Your task to perform on an android device: open app "Cash App" (install if not already installed) Image 0: 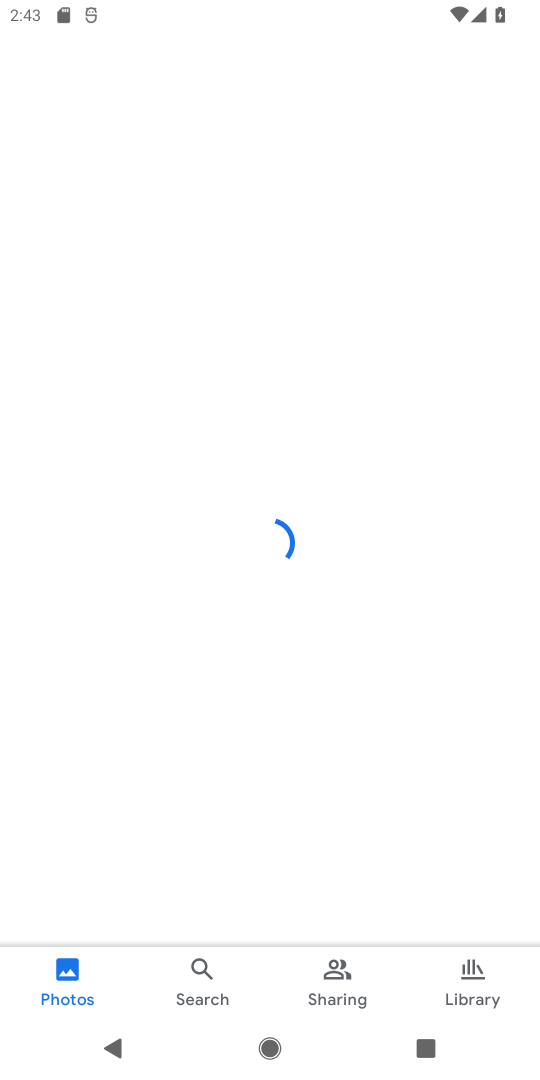
Step 0: press home button
Your task to perform on an android device: open app "Cash App" (install if not already installed) Image 1: 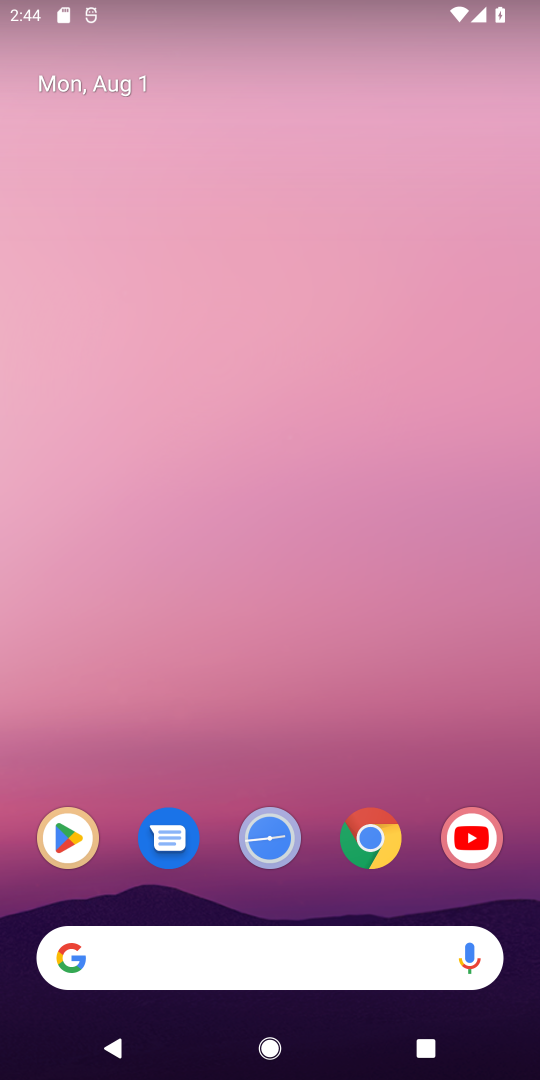
Step 1: press home button
Your task to perform on an android device: open app "Cash App" (install if not already installed) Image 2: 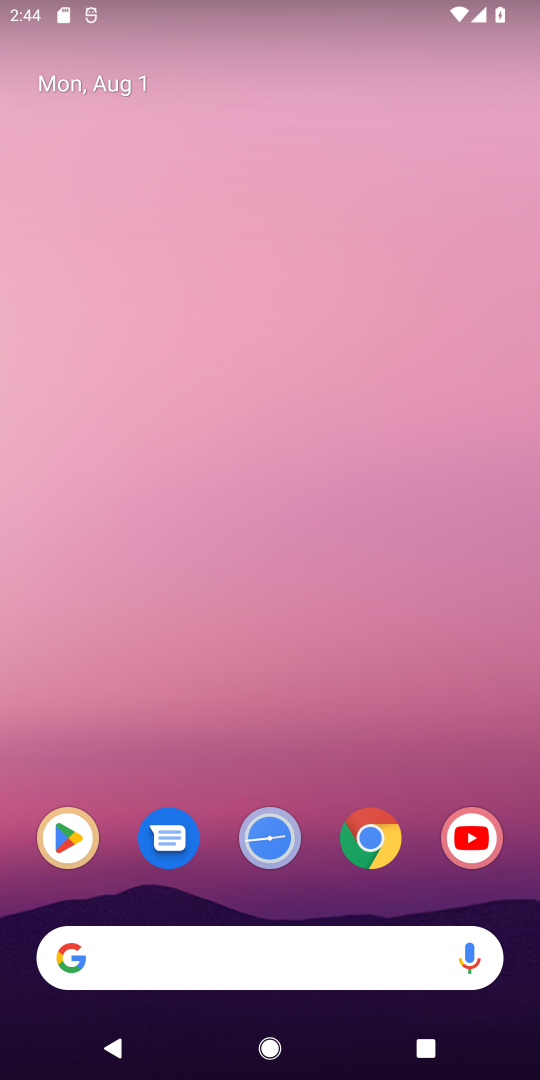
Step 2: click (69, 832)
Your task to perform on an android device: open app "Cash App" (install if not already installed) Image 3: 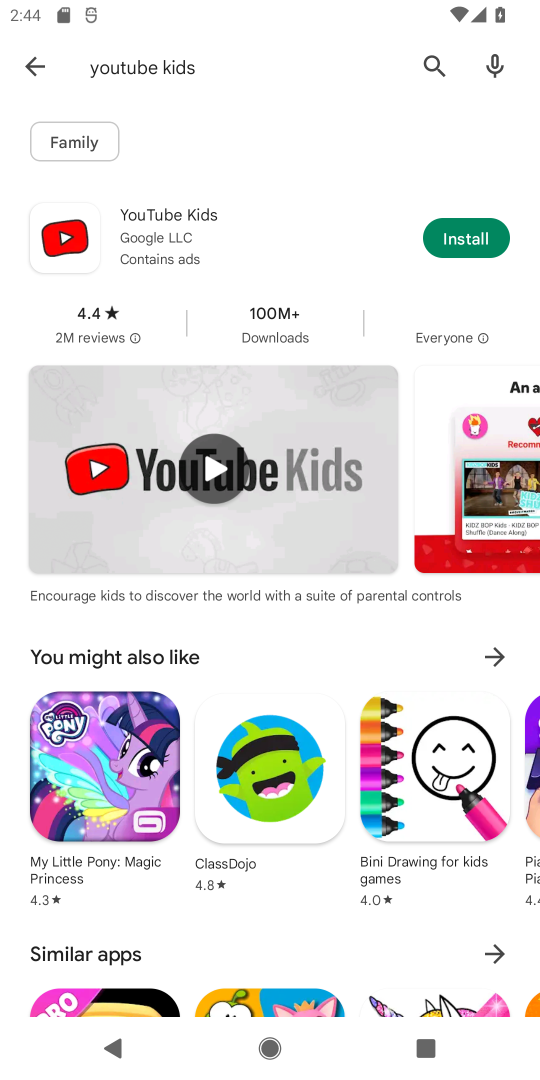
Step 3: click (435, 63)
Your task to perform on an android device: open app "Cash App" (install if not already installed) Image 4: 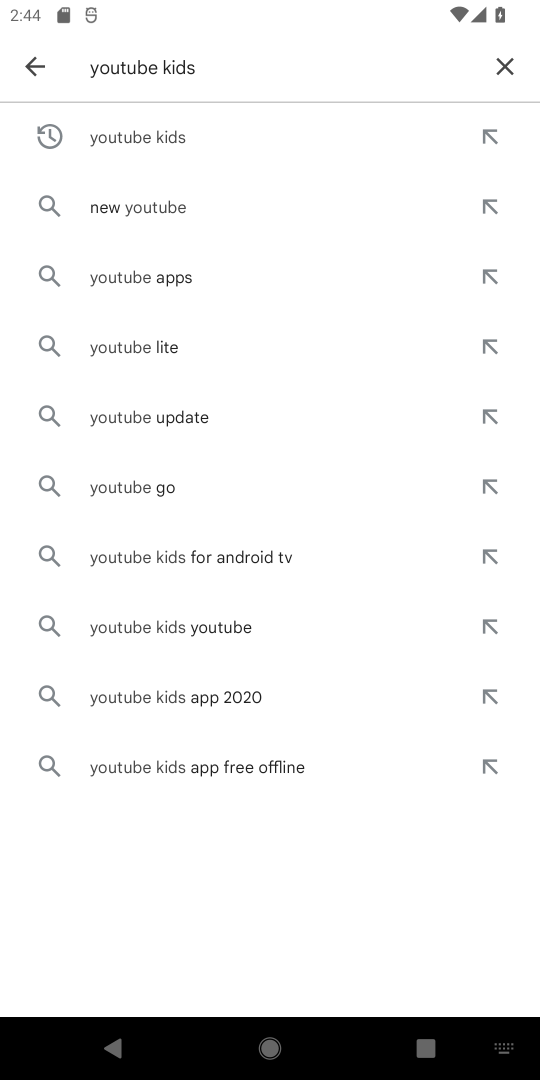
Step 4: click (500, 70)
Your task to perform on an android device: open app "Cash App" (install if not already installed) Image 5: 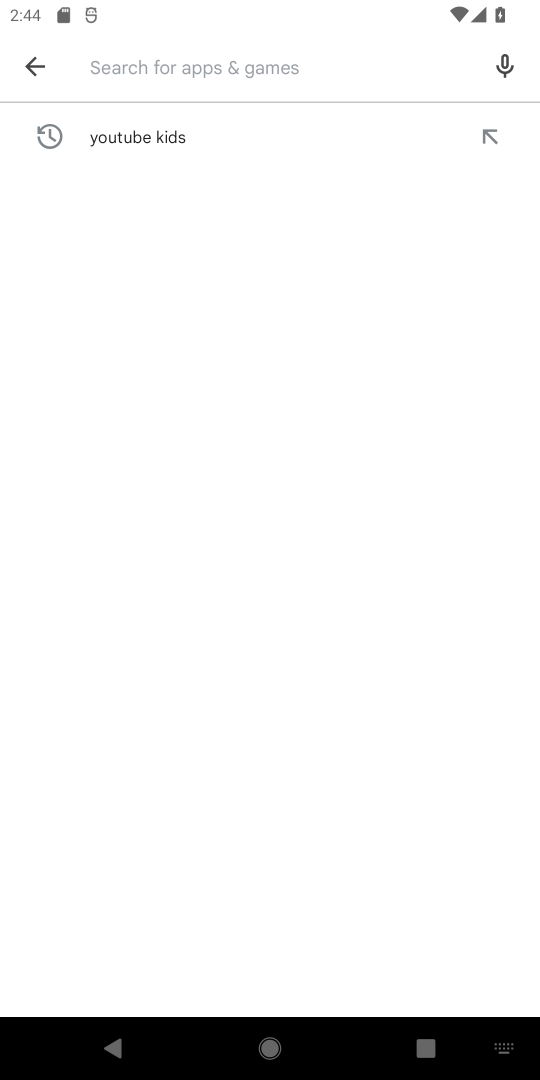
Step 5: type "cashapp"
Your task to perform on an android device: open app "Cash App" (install if not already installed) Image 6: 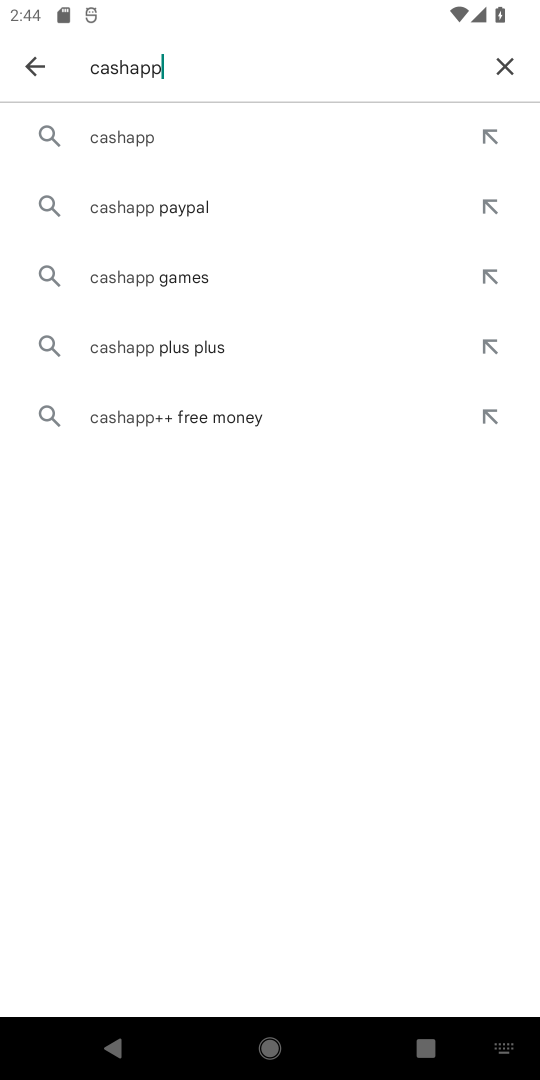
Step 6: click (365, 131)
Your task to perform on an android device: open app "Cash App" (install if not already installed) Image 7: 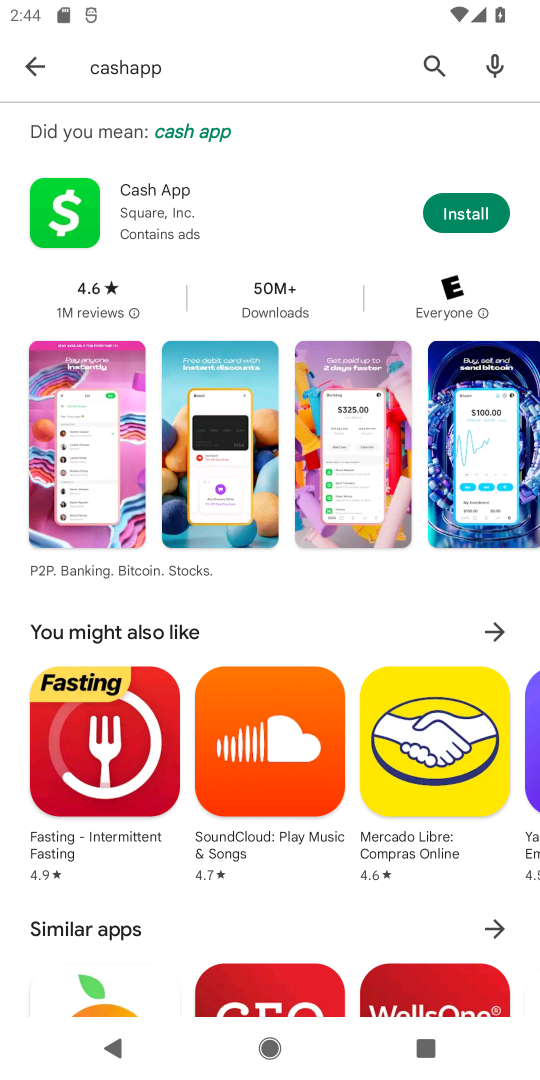
Step 7: click (455, 206)
Your task to perform on an android device: open app "Cash App" (install if not already installed) Image 8: 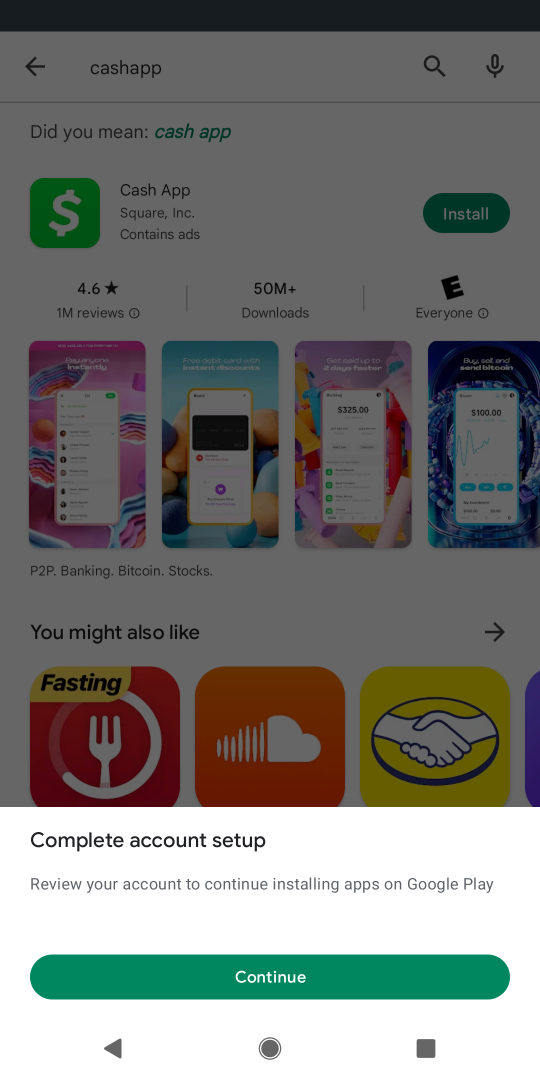
Step 8: click (287, 982)
Your task to perform on an android device: open app "Cash App" (install if not already installed) Image 9: 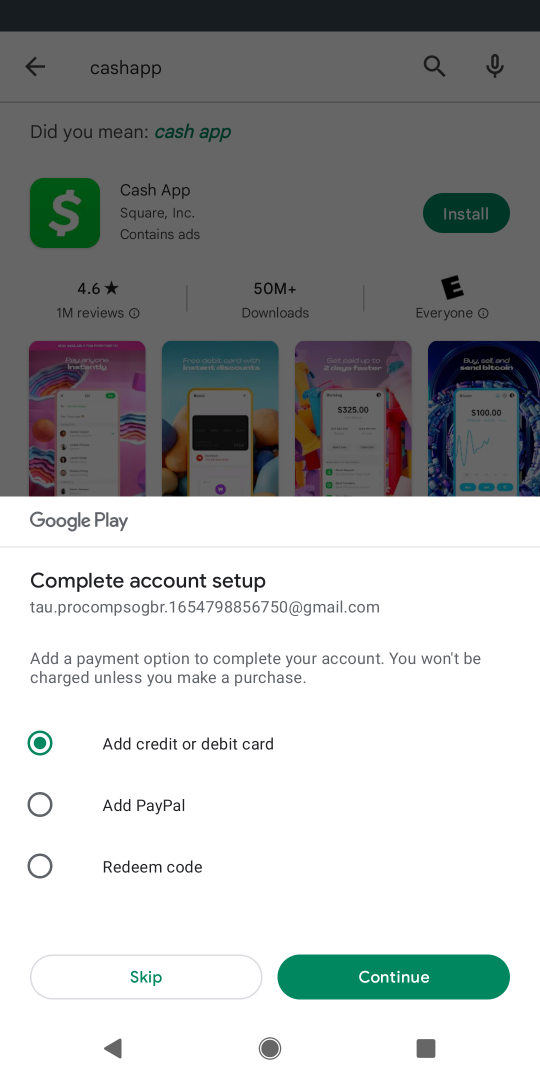
Step 9: click (146, 997)
Your task to perform on an android device: open app "Cash App" (install if not already installed) Image 10: 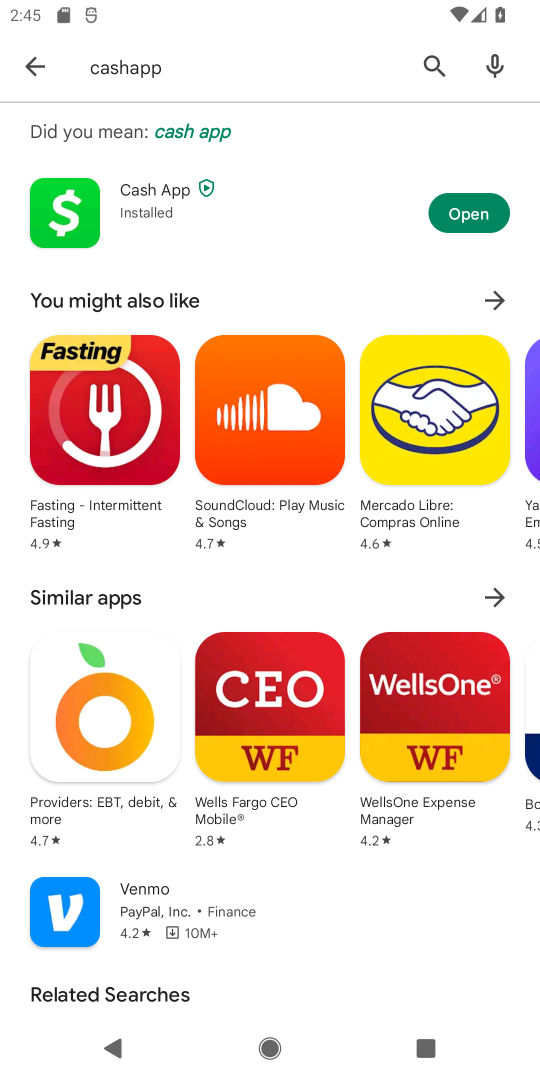
Step 10: click (464, 208)
Your task to perform on an android device: open app "Cash App" (install if not already installed) Image 11: 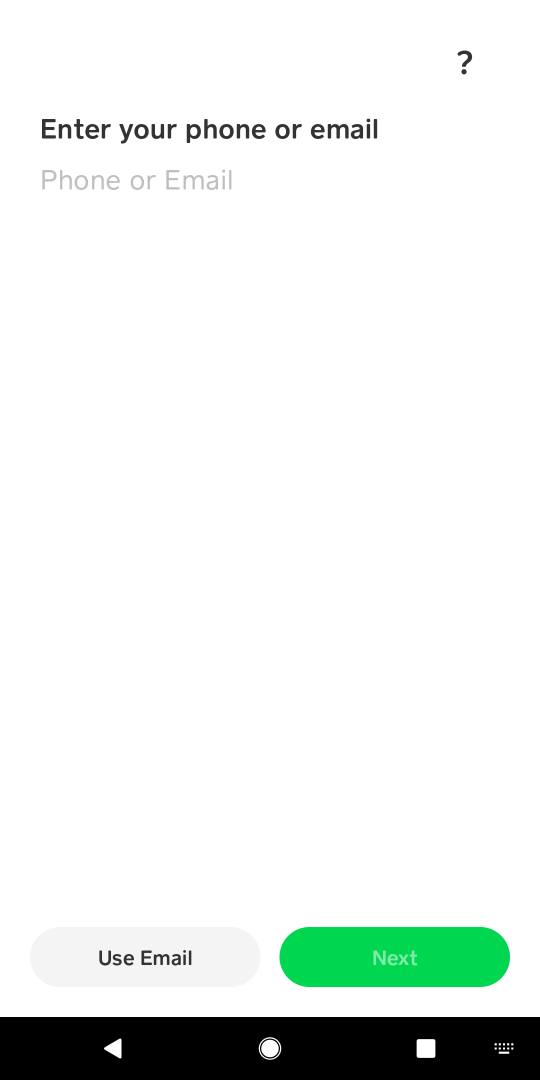
Step 11: click (453, 59)
Your task to perform on an android device: open app "Cash App" (install if not already installed) Image 12: 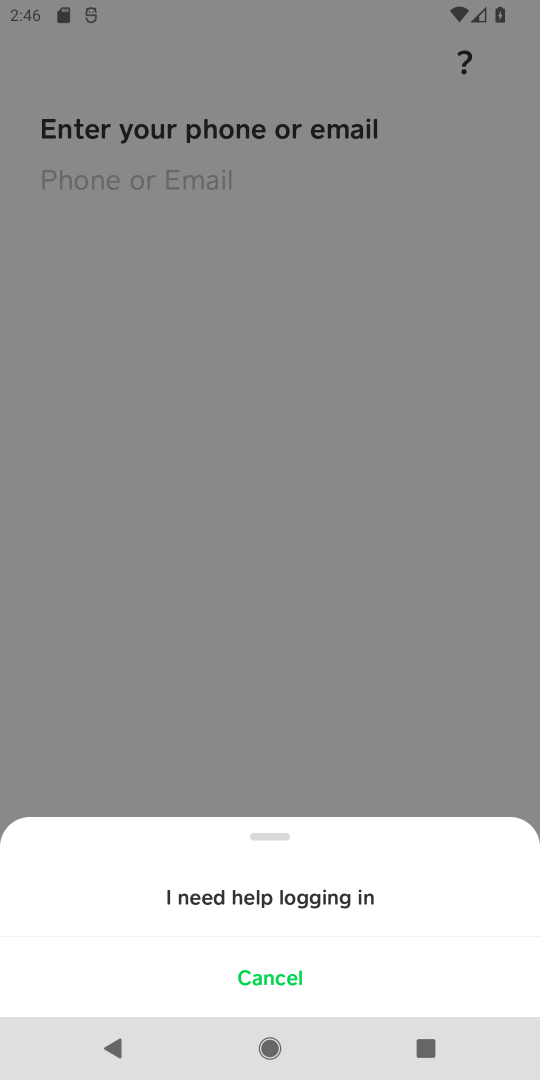
Step 12: click (263, 977)
Your task to perform on an android device: open app "Cash App" (install if not already installed) Image 13: 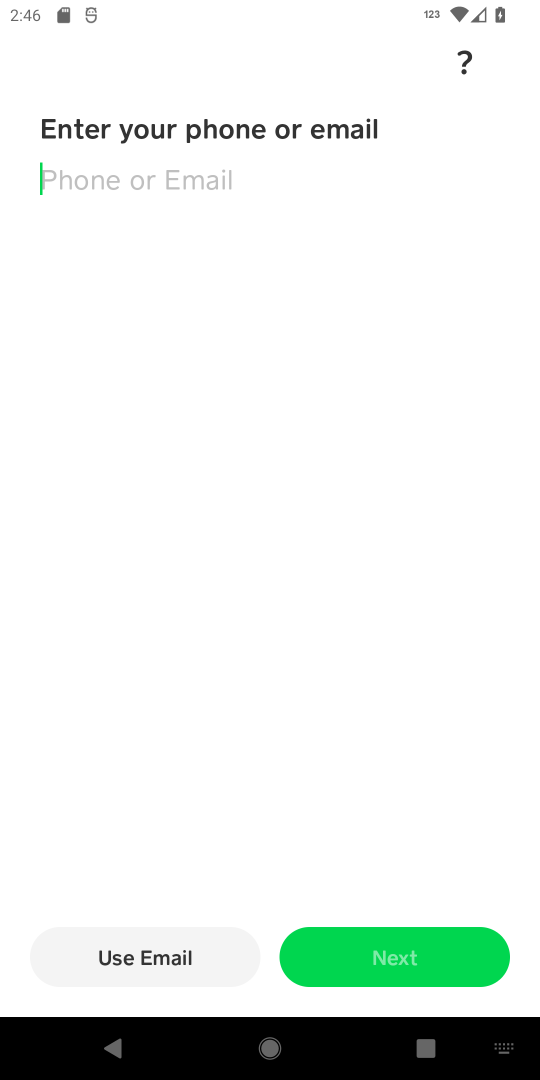
Step 13: click (150, 955)
Your task to perform on an android device: open app "Cash App" (install if not already installed) Image 14: 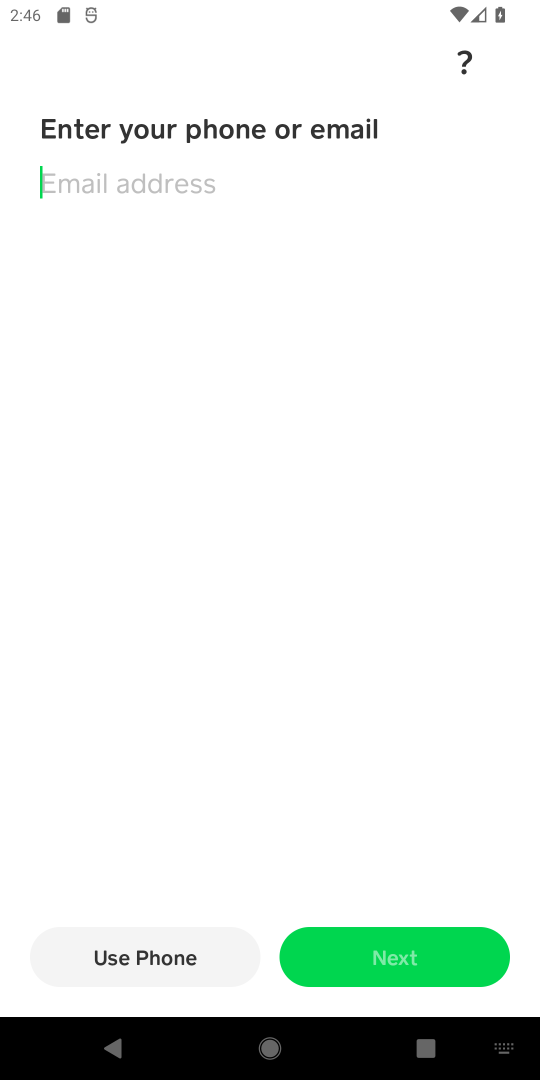
Step 14: click (105, 174)
Your task to perform on an android device: open app "Cash App" (install if not already installed) Image 15: 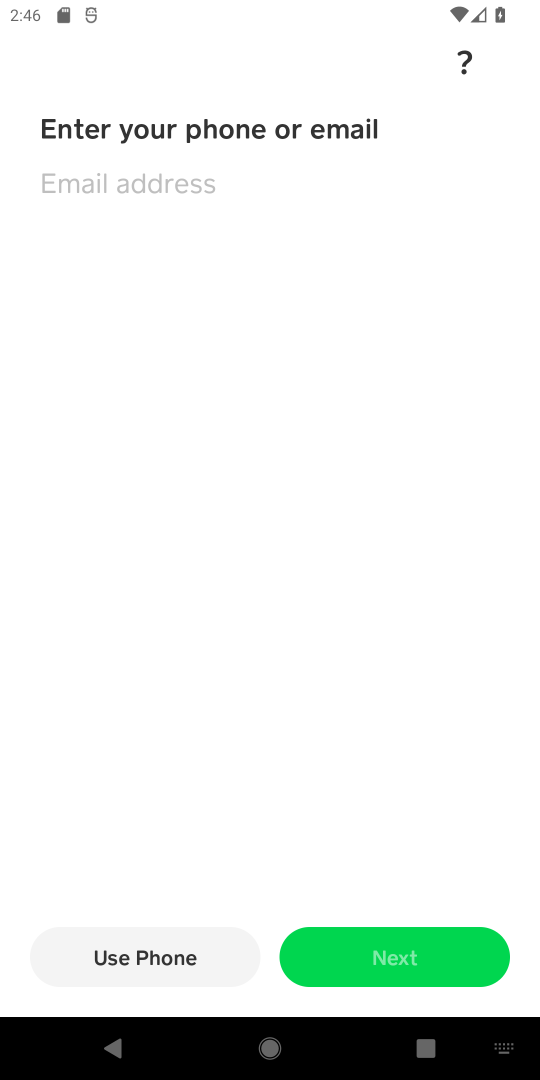
Step 15: task complete